Your task to perform on an android device: visit the assistant section in the google photos Image 0: 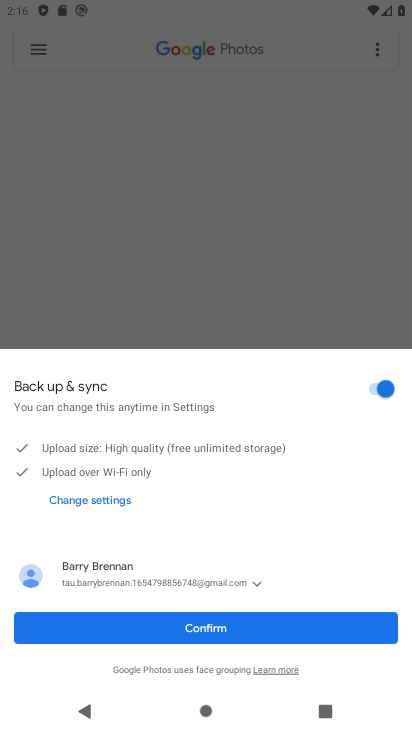
Step 0: press home button
Your task to perform on an android device: visit the assistant section in the google photos Image 1: 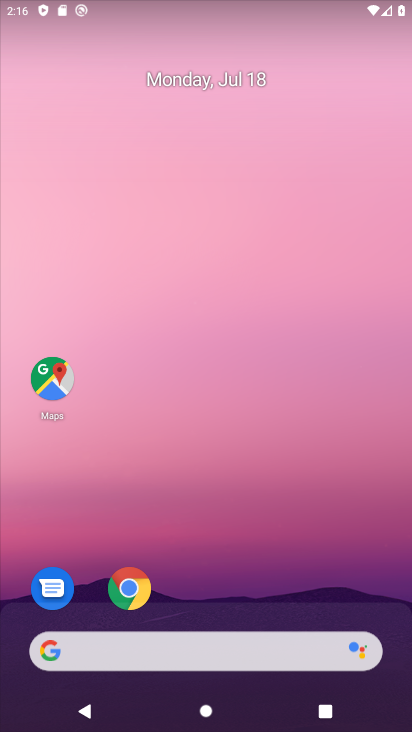
Step 1: drag from (228, 547) to (359, 566)
Your task to perform on an android device: visit the assistant section in the google photos Image 2: 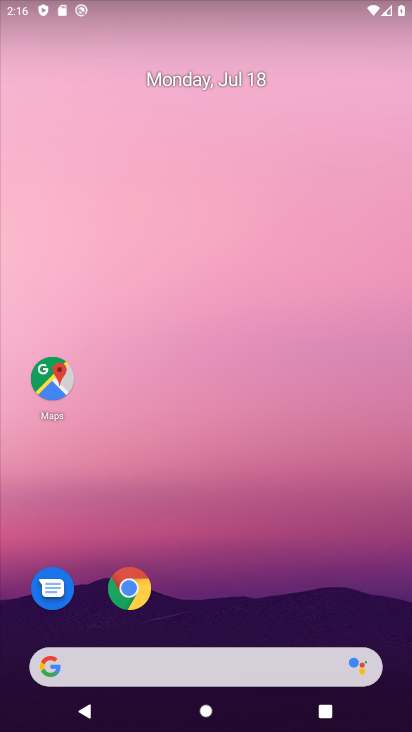
Step 2: drag from (256, 649) to (247, 172)
Your task to perform on an android device: visit the assistant section in the google photos Image 3: 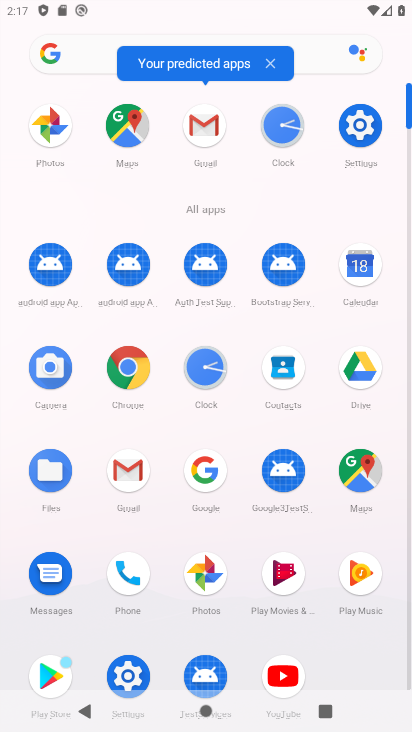
Step 3: click (53, 132)
Your task to perform on an android device: visit the assistant section in the google photos Image 4: 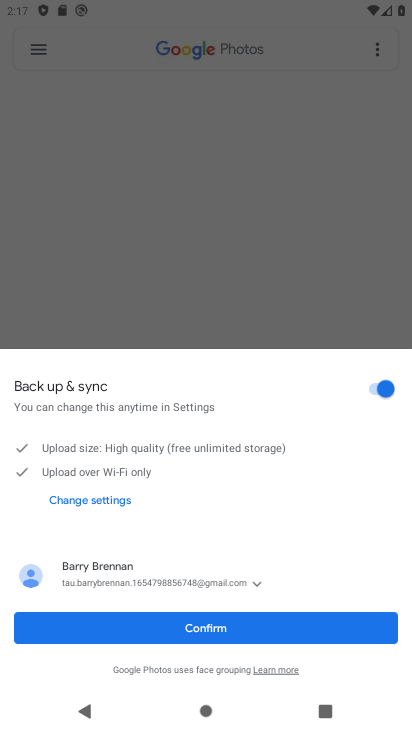
Step 4: click (234, 640)
Your task to perform on an android device: visit the assistant section in the google photos Image 5: 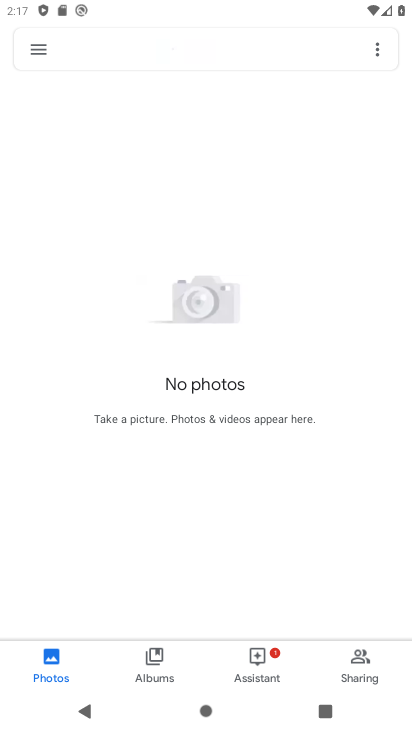
Step 5: click (247, 672)
Your task to perform on an android device: visit the assistant section in the google photos Image 6: 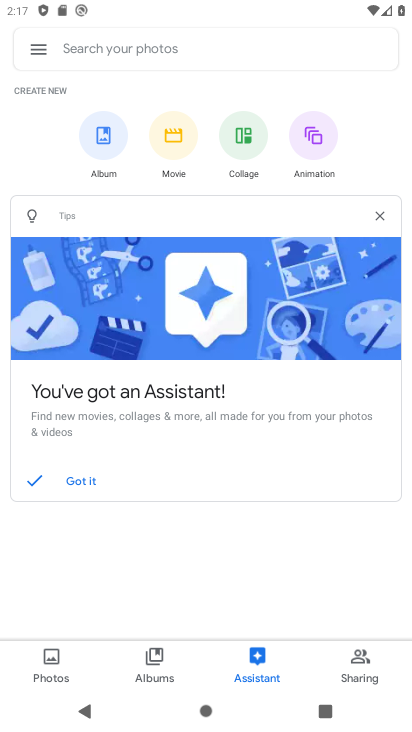
Step 6: task complete